Your task to perform on an android device: What's the weather? Image 0: 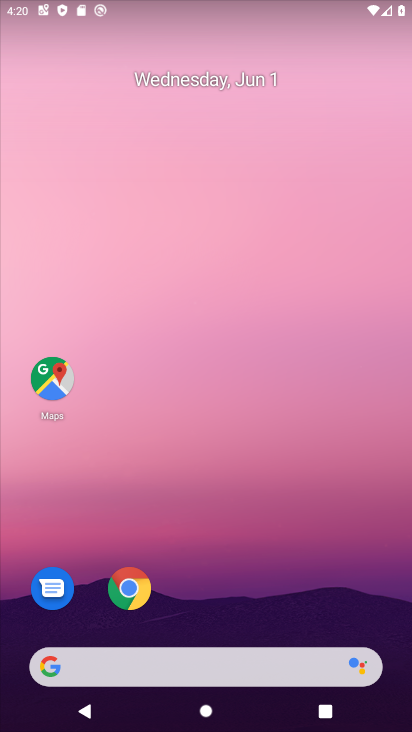
Step 0: click (165, 665)
Your task to perform on an android device: What's the weather? Image 1: 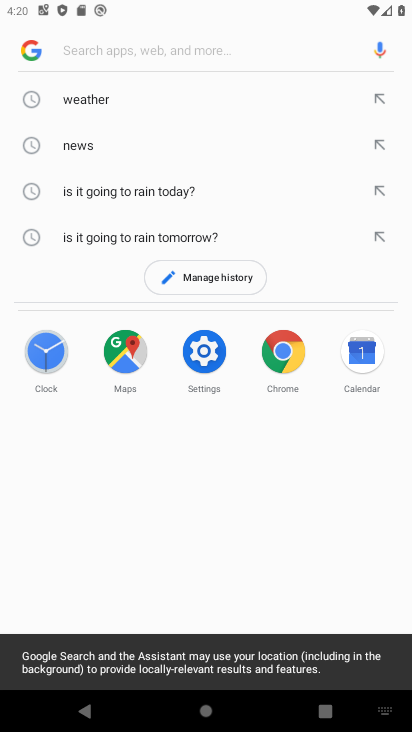
Step 1: click (89, 111)
Your task to perform on an android device: What's the weather? Image 2: 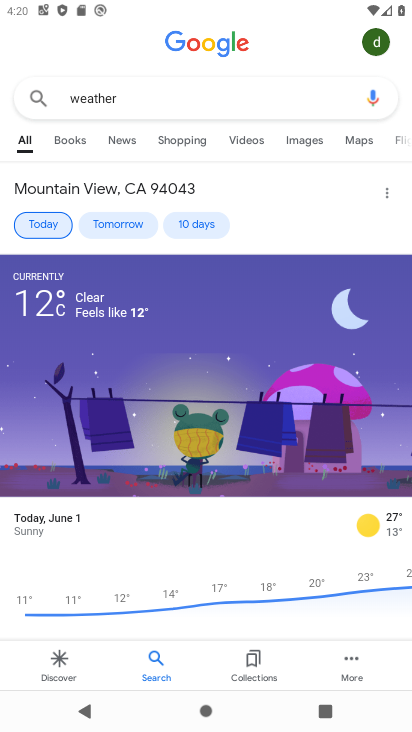
Step 2: task complete